Your task to perform on an android device: turn notification dots on Image 0: 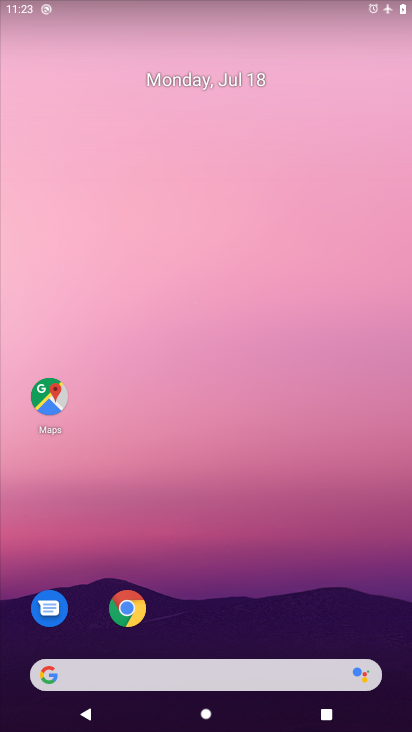
Step 0: drag from (35, 696) to (201, 219)
Your task to perform on an android device: turn notification dots on Image 1: 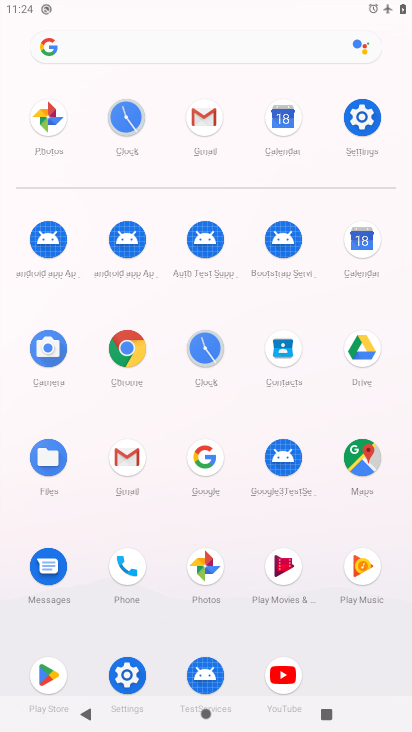
Step 1: click (140, 679)
Your task to perform on an android device: turn notification dots on Image 2: 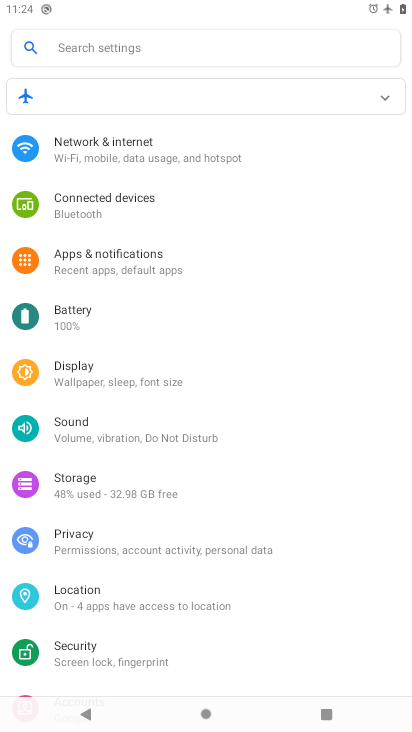
Step 2: click (131, 271)
Your task to perform on an android device: turn notification dots on Image 3: 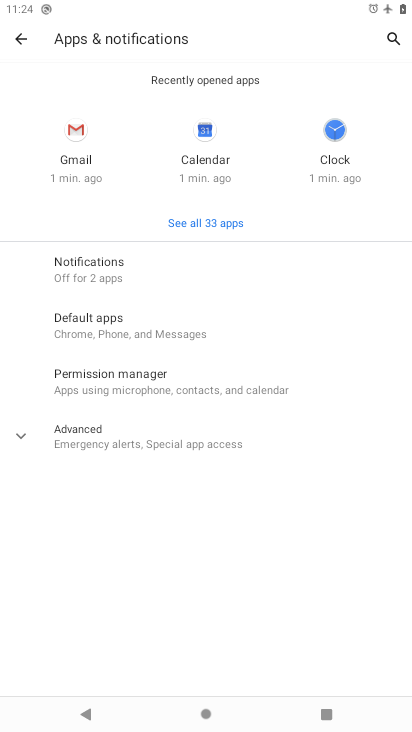
Step 3: click (76, 271)
Your task to perform on an android device: turn notification dots on Image 4: 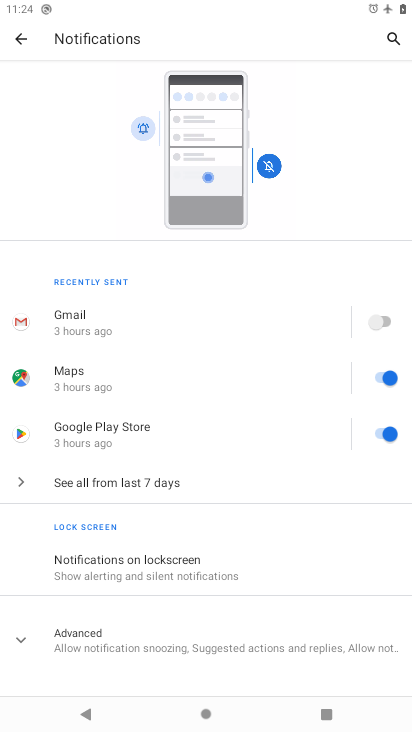
Step 4: drag from (159, 638) to (197, 433)
Your task to perform on an android device: turn notification dots on Image 5: 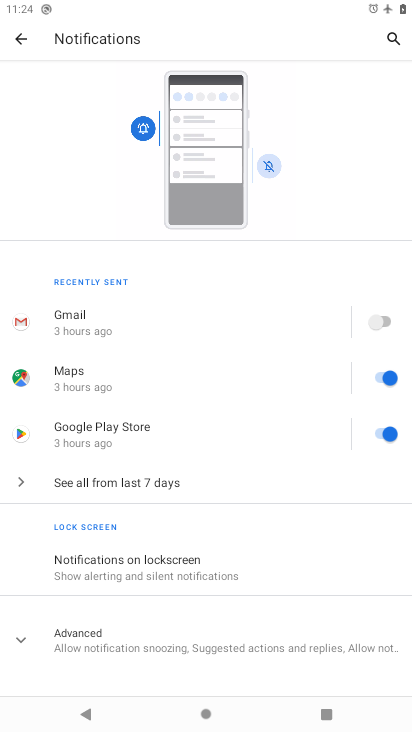
Step 5: click (114, 613)
Your task to perform on an android device: turn notification dots on Image 6: 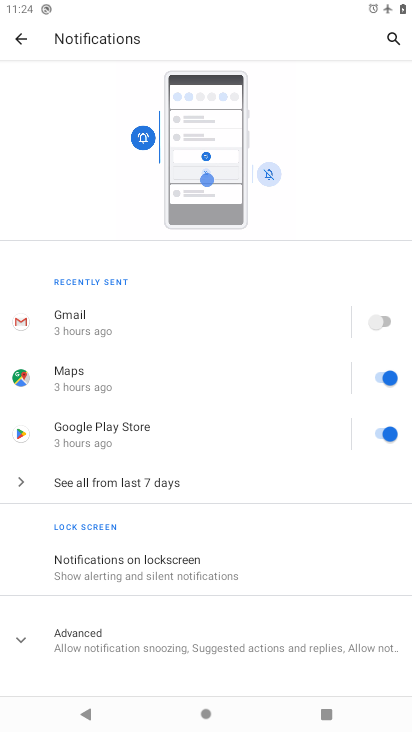
Step 6: click (76, 635)
Your task to perform on an android device: turn notification dots on Image 7: 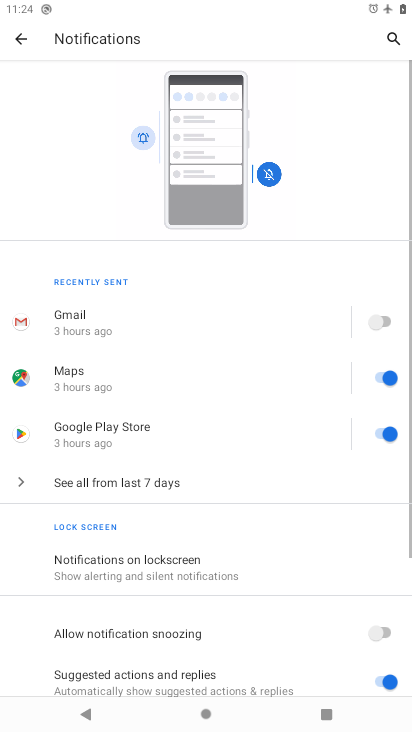
Step 7: drag from (207, 610) to (220, 117)
Your task to perform on an android device: turn notification dots on Image 8: 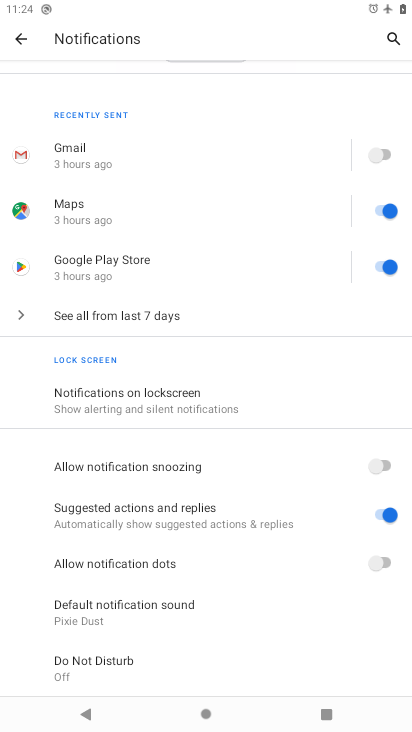
Step 8: click (385, 555)
Your task to perform on an android device: turn notification dots on Image 9: 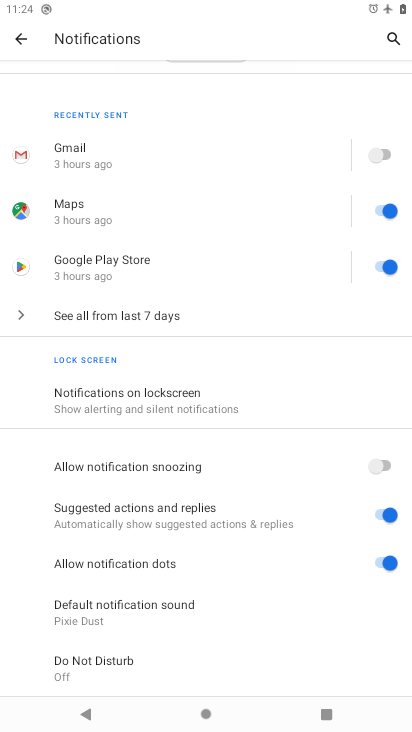
Step 9: task complete